Your task to perform on an android device: turn on priority inbox in the gmail app Image 0: 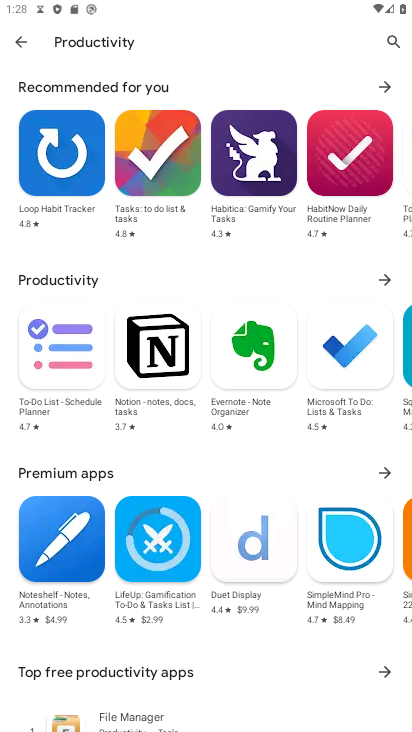
Step 0: press home button
Your task to perform on an android device: turn on priority inbox in the gmail app Image 1: 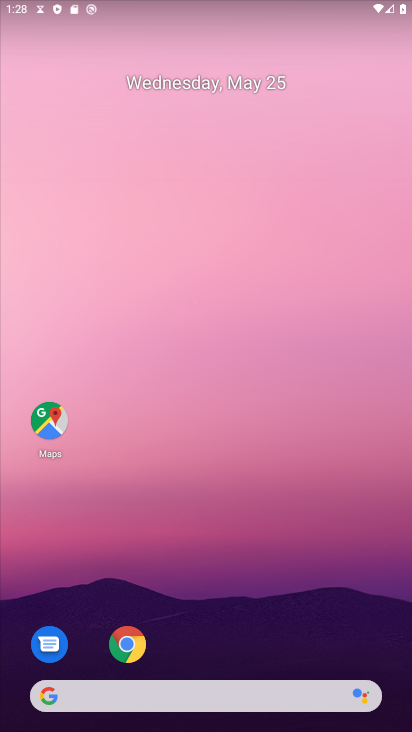
Step 1: drag from (204, 606) to (209, 6)
Your task to perform on an android device: turn on priority inbox in the gmail app Image 2: 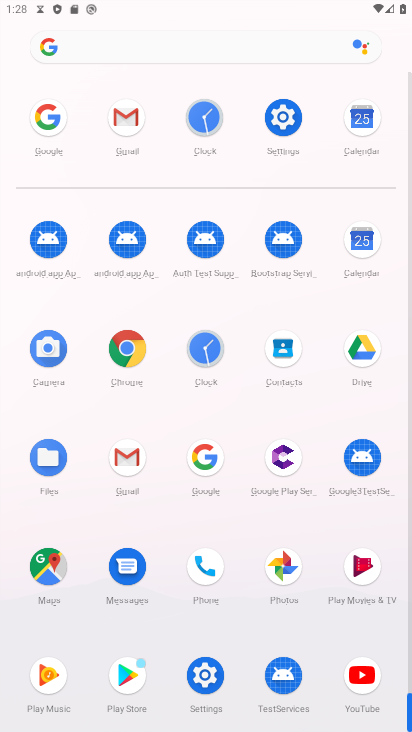
Step 2: click (138, 482)
Your task to perform on an android device: turn on priority inbox in the gmail app Image 3: 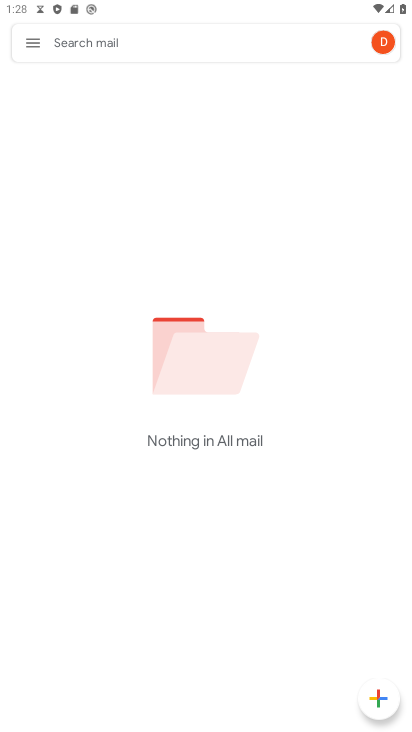
Step 3: click (28, 48)
Your task to perform on an android device: turn on priority inbox in the gmail app Image 4: 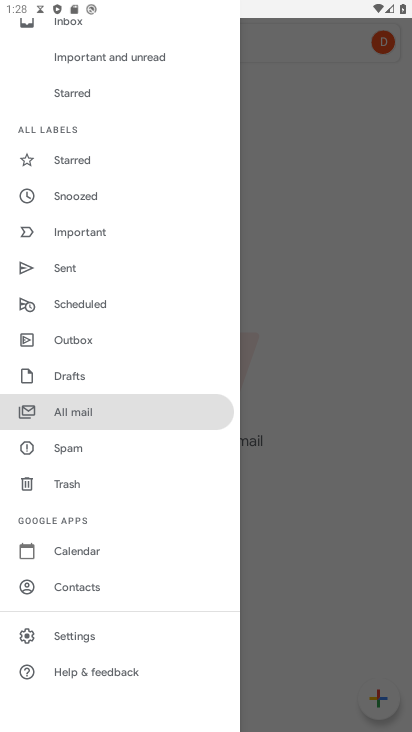
Step 4: click (82, 632)
Your task to perform on an android device: turn on priority inbox in the gmail app Image 5: 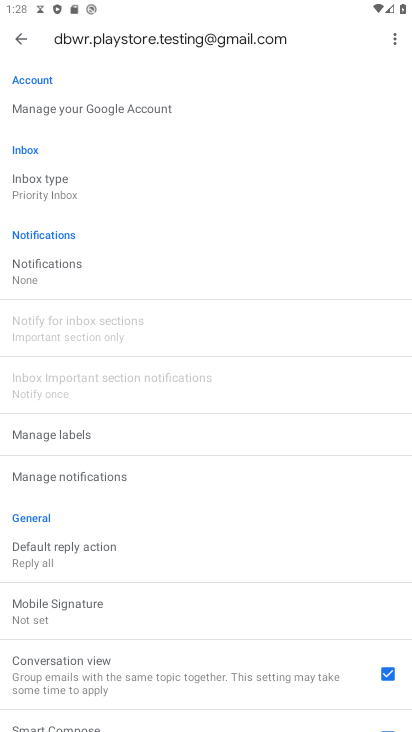
Step 5: click (46, 185)
Your task to perform on an android device: turn on priority inbox in the gmail app Image 6: 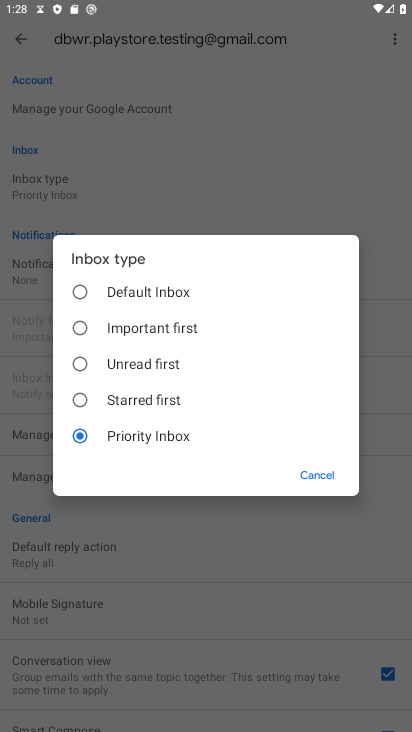
Step 6: task complete